Your task to perform on an android device: Open Maps and search for coffee Image 0: 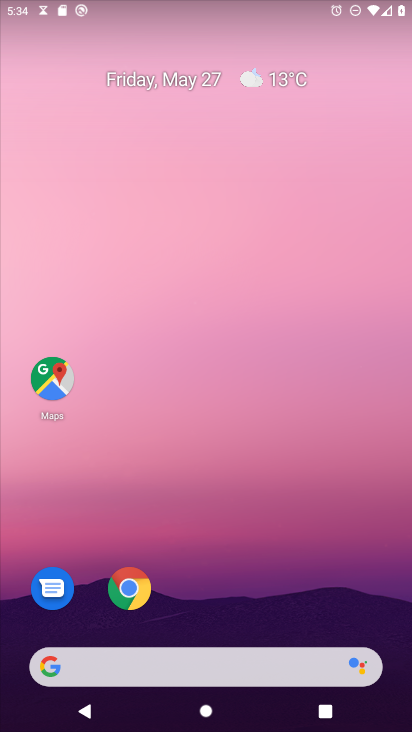
Step 0: click (42, 378)
Your task to perform on an android device: Open Maps and search for coffee Image 1: 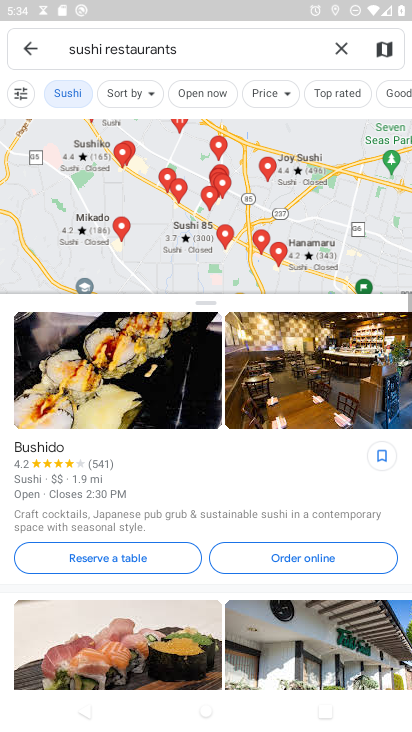
Step 1: click (339, 45)
Your task to perform on an android device: Open Maps and search for coffee Image 2: 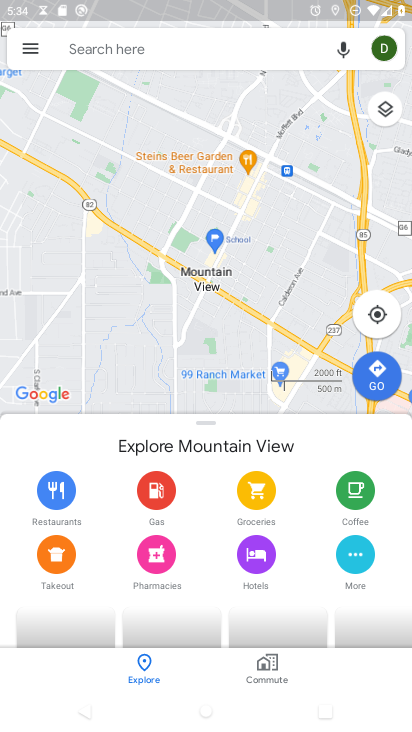
Step 2: click (171, 44)
Your task to perform on an android device: Open Maps and search for coffee Image 3: 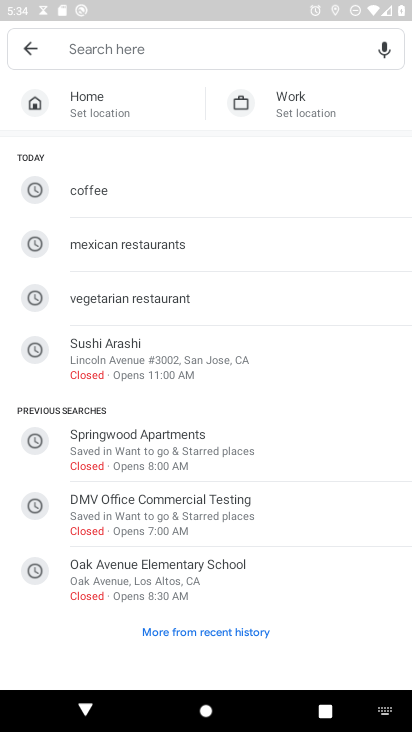
Step 3: type "coffee"
Your task to perform on an android device: Open Maps and search for coffee Image 4: 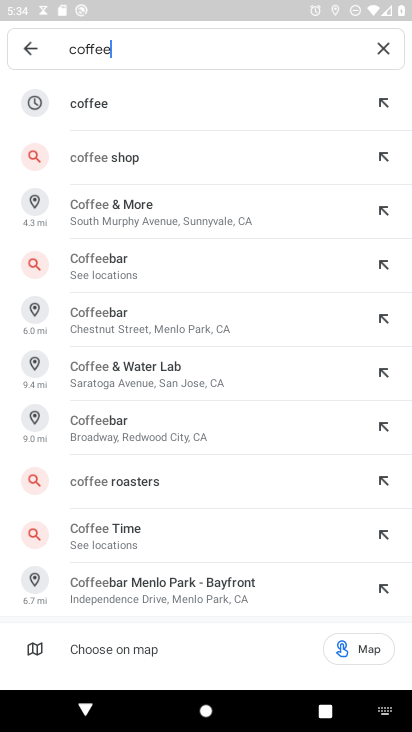
Step 4: click (91, 100)
Your task to perform on an android device: Open Maps and search for coffee Image 5: 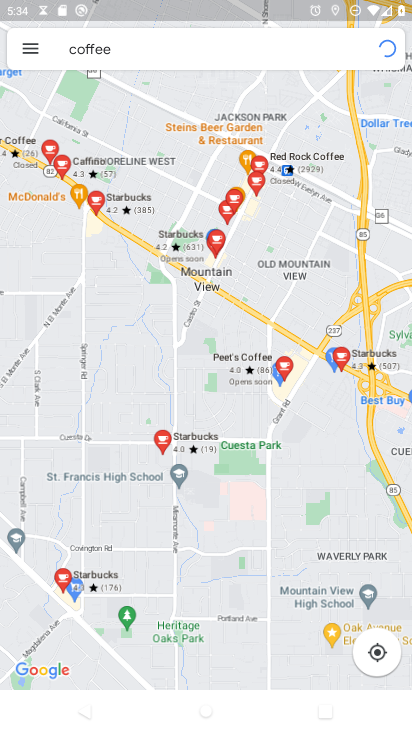
Step 5: task complete